Your task to perform on an android device: Go to Reddit.com Image 0: 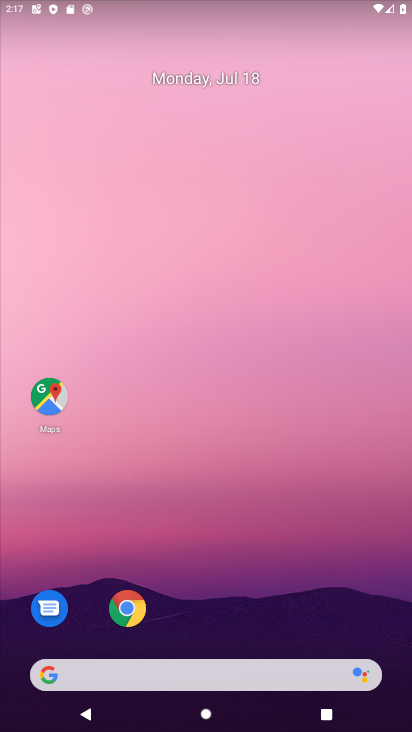
Step 0: drag from (190, 657) to (242, 170)
Your task to perform on an android device: Go to Reddit.com Image 1: 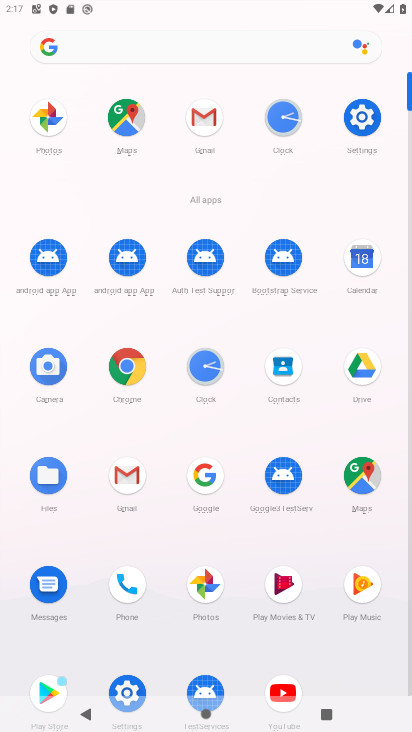
Step 1: click (212, 493)
Your task to perform on an android device: Go to Reddit.com Image 2: 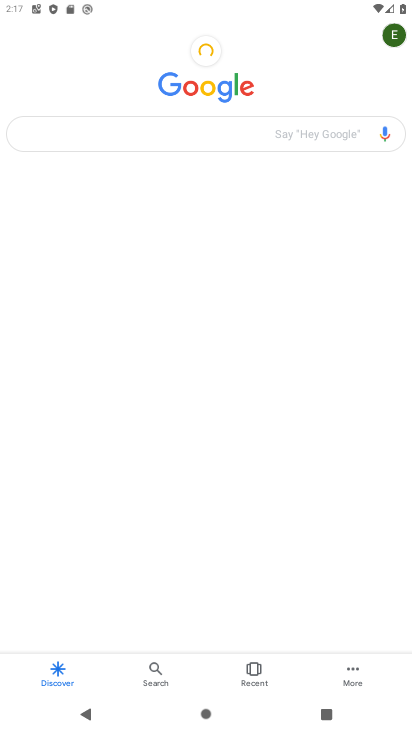
Step 2: click (181, 134)
Your task to perform on an android device: Go to Reddit.com Image 3: 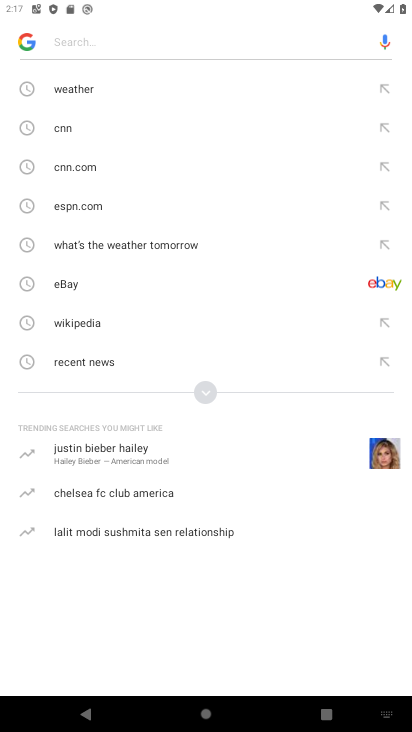
Step 3: type "Reddit.com"
Your task to perform on an android device: Go to Reddit.com Image 4: 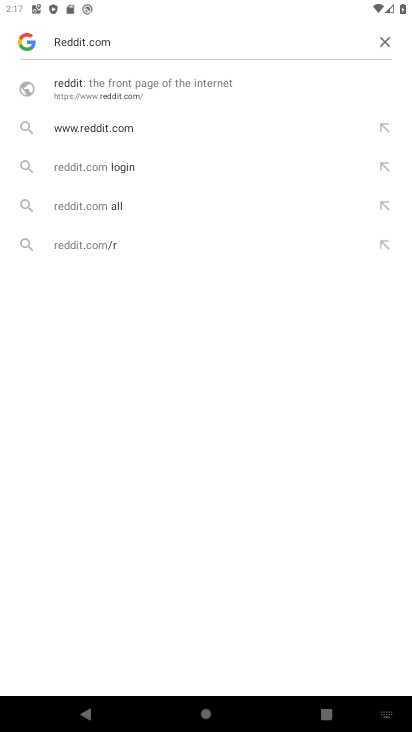
Step 4: click (219, 104)
Your task to perform on an android device: Go to Reddit.com Image 5: 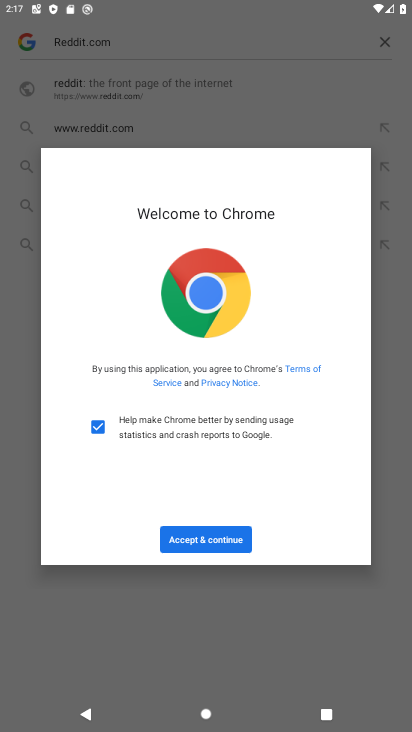
Step 5: click (224, 553)
Your task to perform on an android device: Go to Reddit.com Image 6: 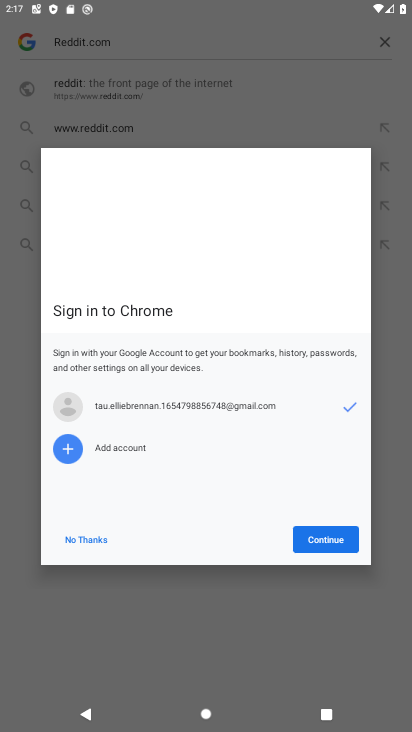
Step 6: click (338, 543)
Your task to perform on an android device: Go to Reddit.com Image 7: 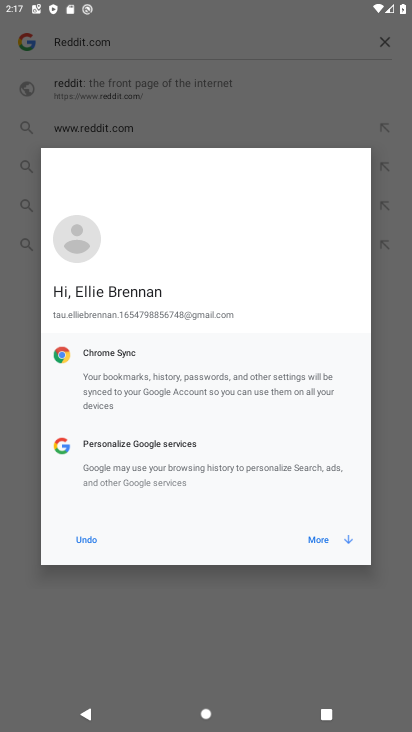
Step 7: click (338, 542)
Your task to perform on an android device: Go to Reddit.com Image 8: 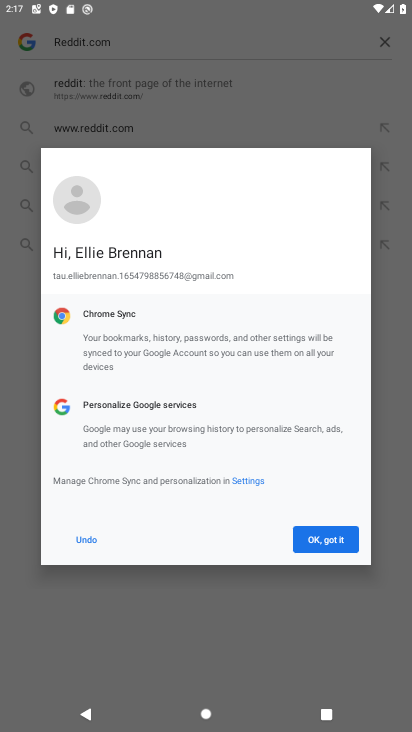
Step 8: click (338, 541)
Your task to perform on an android device: Go to Reddit.com Image 9: 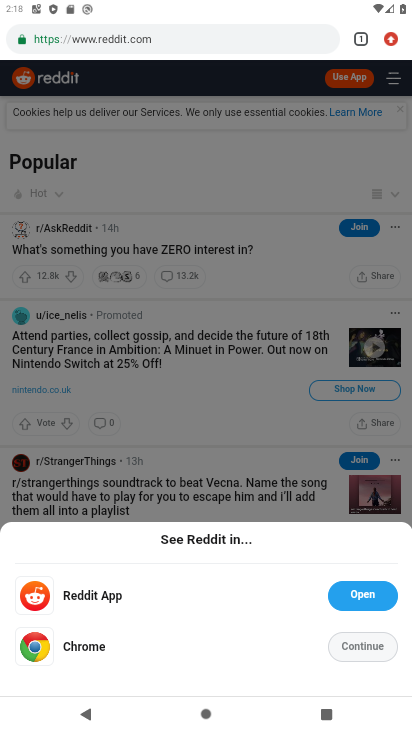
Step 9: click (381, 644)
Your task to perform on an android device: Go to Reddit.com Image 10: 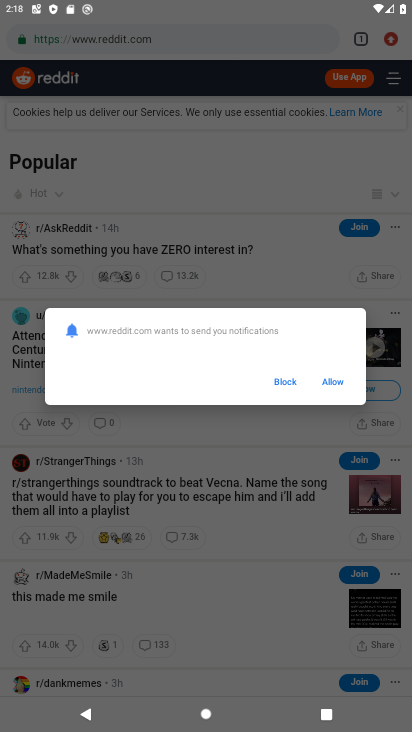
Step 10: click (347, 382)
Your task to perform on an android device: Go to Reddit.com Image 11: 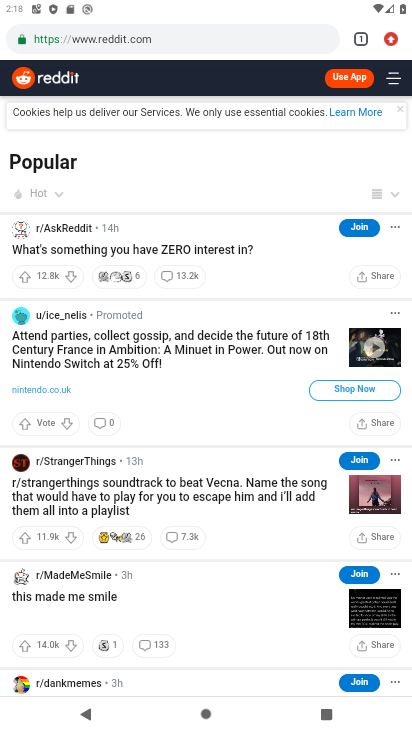
Step 11: task complete